Your task to perform on an android device: turn pop-ups on in chrome Image 0: 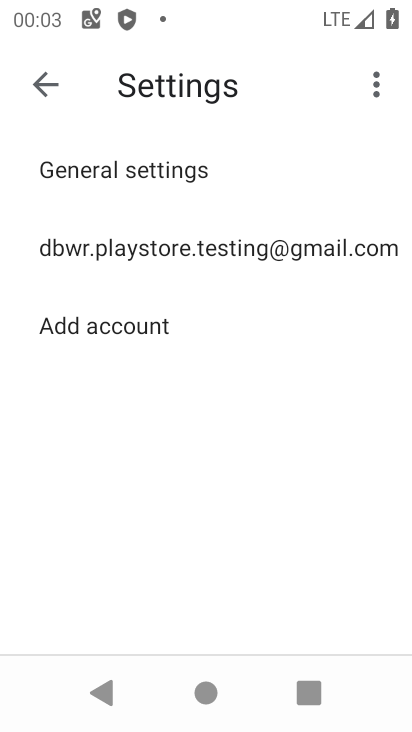
Step 0: press home button
Your task to perform on an android device: turn pop-ups on in chrome Image 1: 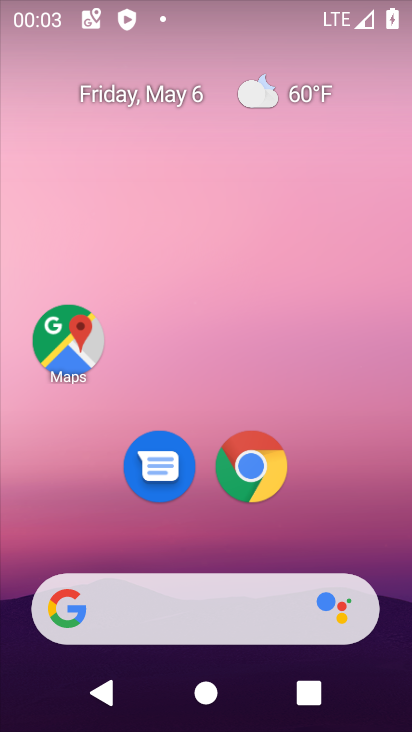
Step 1: click (259, 485)
Your task to perform on an android device: turn pop-ups on in chrome Image 2: 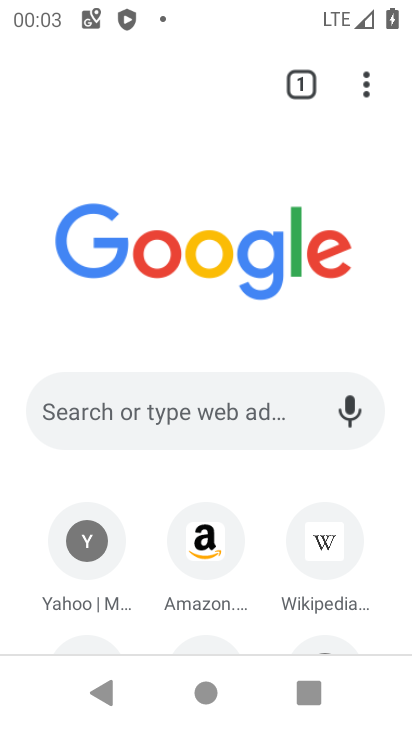
Step 2: click (368, 84)
Your task to perform on an android device: turn pop-ups on in chrome Image 3: 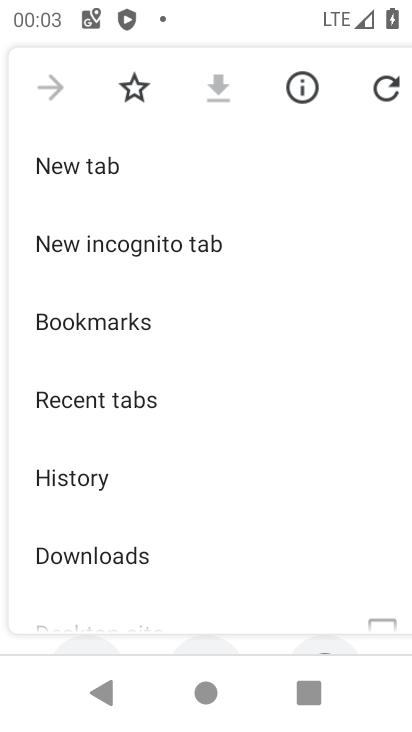
Step 3: drag from (86, 598) to (146, 221)
Your task to perform on an android device: turn pop-ups on in chrome Image 4: 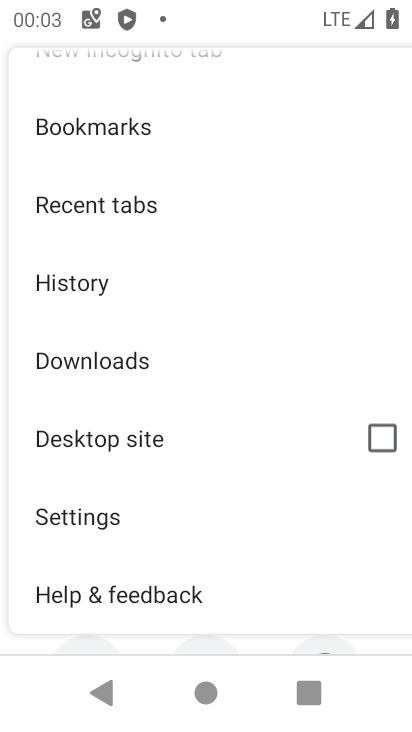
Step 4: drag from (148, 569) to (216, 212)
Your task to perform on an android device: turn pop-ups on in chrome Image 5: 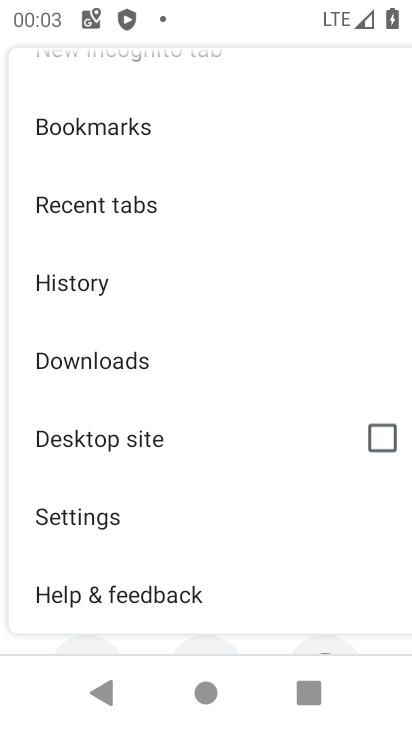
Step 5: click (67, 515)
Your task to perform on an android device: turn pop-ups on in chrome Image 6: 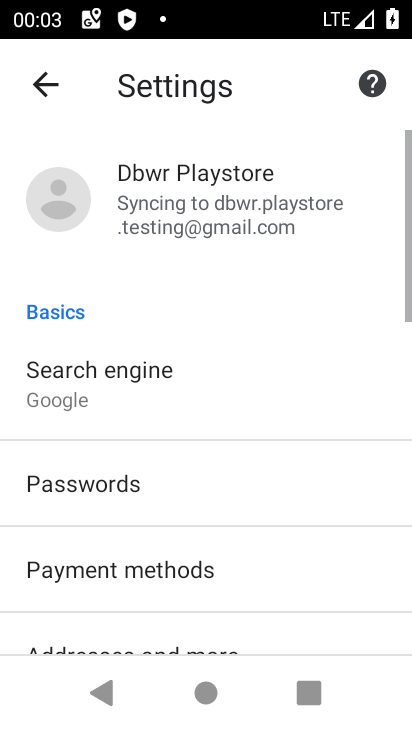
Step 6: drag from (134, 644) to (184, 305)
Your task to perform on an android device: turn pop-ups on in chrome Image 7: 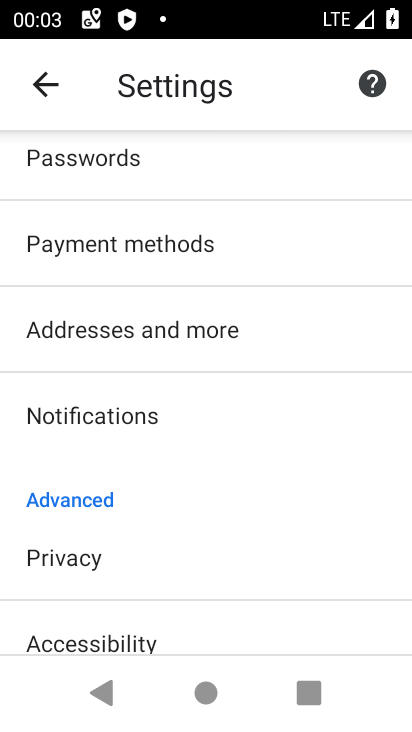
Step 7: drag from (138, 644) to (203, 310)
Your task to perform on an android device: turn pop-ups on in chrome Image 8: 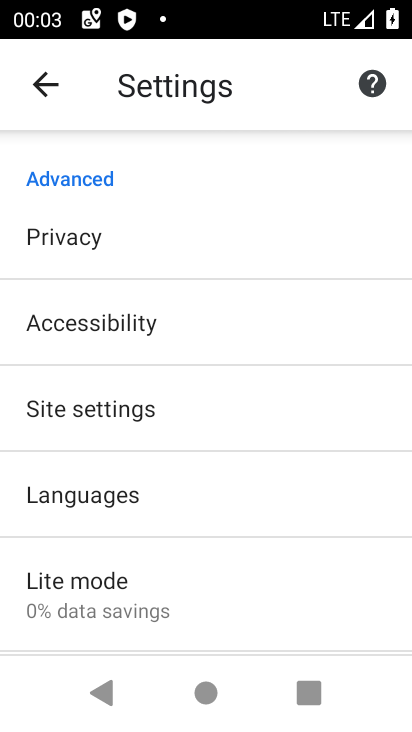
Step 8: click (76, 407)
Your task to perform on an android device: turn pop-ups on in chrome Image 9: 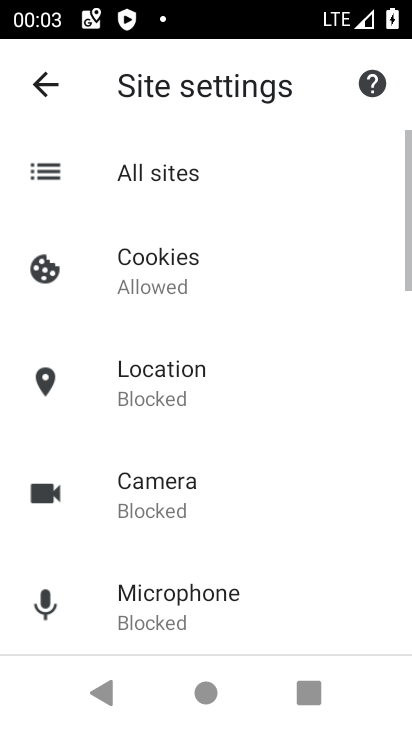
Step 9: drag from (147, 612) to (209, 273)
Your task to perform on an android device: turn pop-ups on in chrome Image 10: 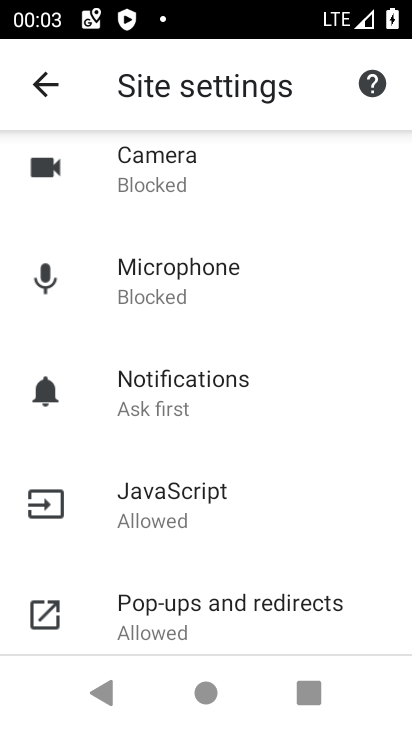
Step 10: click (179, 617)
Your task to perform on an android device: turn pop-ups on in chrome Image 11: 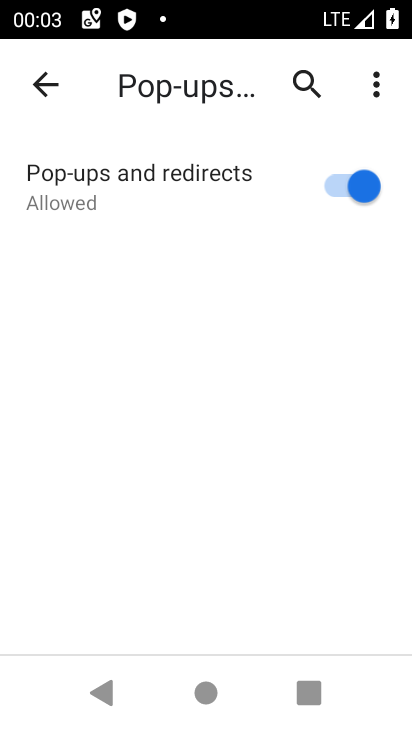
Step 11: task complete